Your task to perform on an android device: turn off notifications in google photos Image 0: 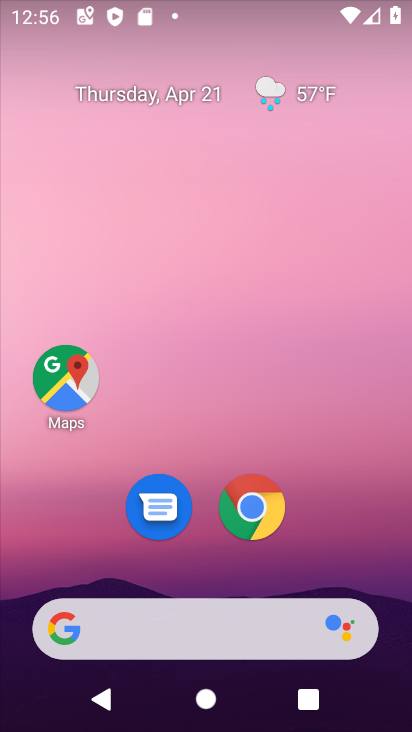
Step 0: drag from (341, 531) to (294, 27)
Your task to perform on an android device: turn off notifications in google photos Image 1: 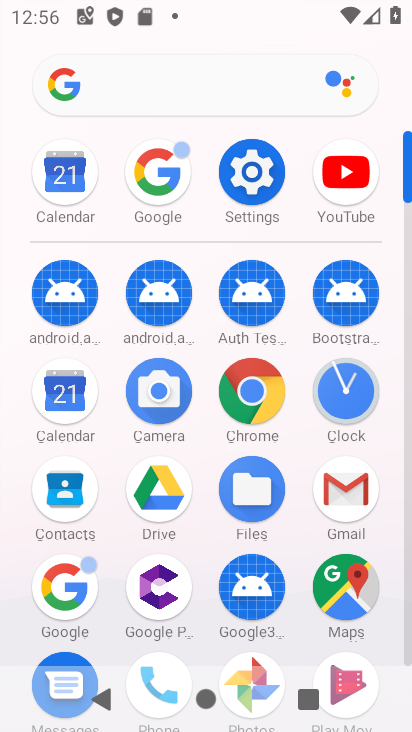
Step 1: drag from (196, 546) to (212, 253)
Your task to perform on an android device: turn off notifications in google photos Image 2: 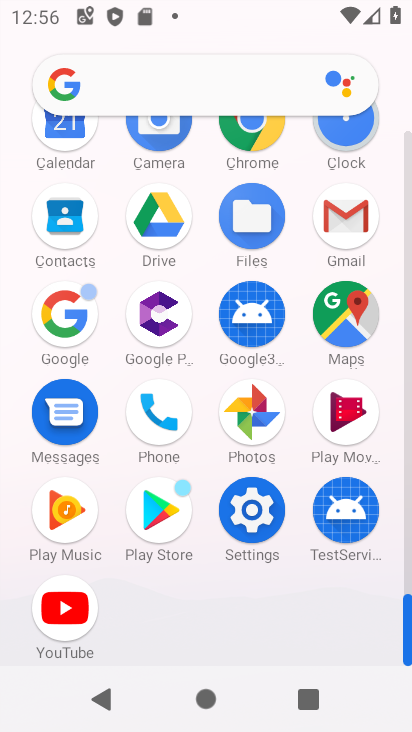
Step 2: click (251, 409)
Your task to perform on an android device: turn off notifications in google photos Image 3: 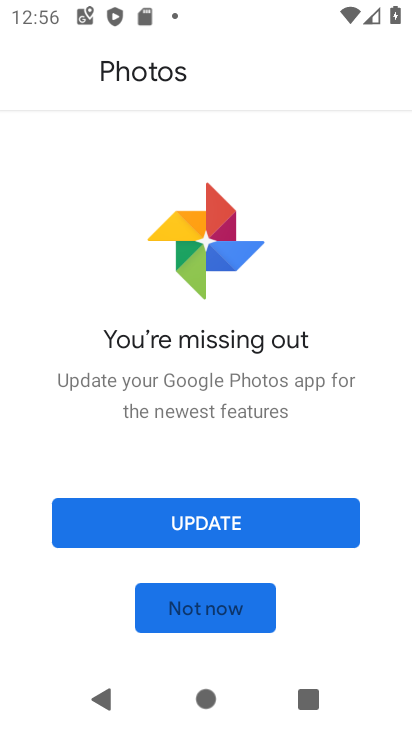
Step 3: click (236, 530)
Your task to perform on an android device: turn off notifications in google photos Image 4: 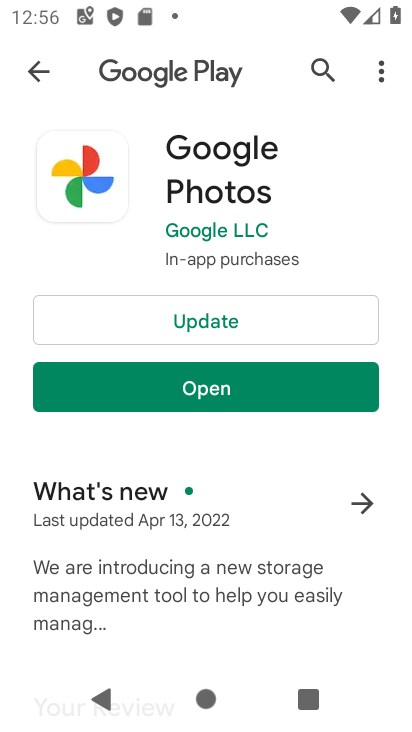
Step 4: click (261, 326)
Your task to perform on an android device: turn off notifications in google photos Image 5: 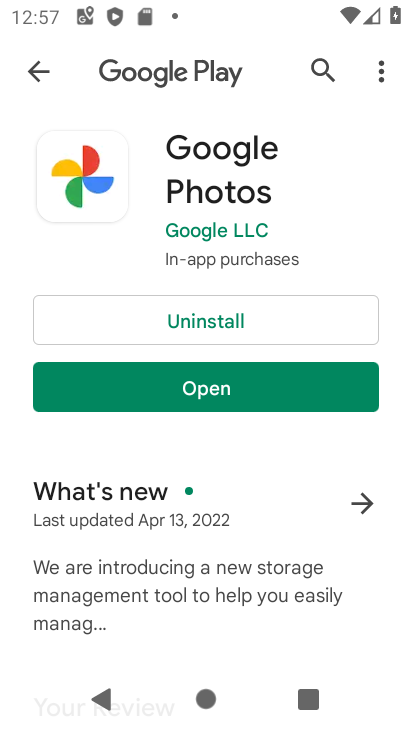
Step 5: click (237, 381)
Your task to perform on an android device: turn off notifications in google photos Image 6: 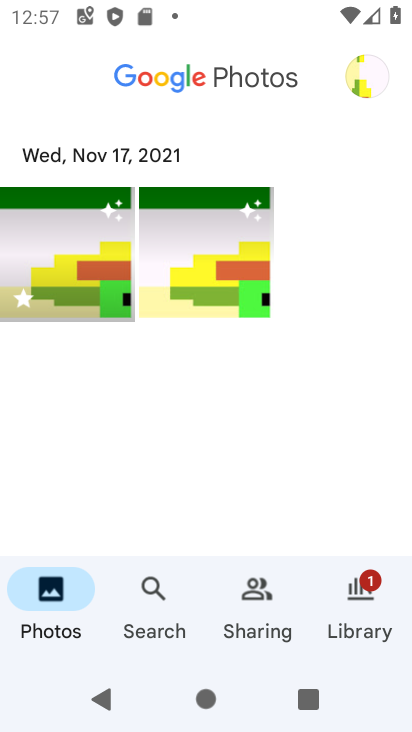
Step 6: click (366, 72)
Your task to perform on an android device: turn off notifications in google photos Image 7: 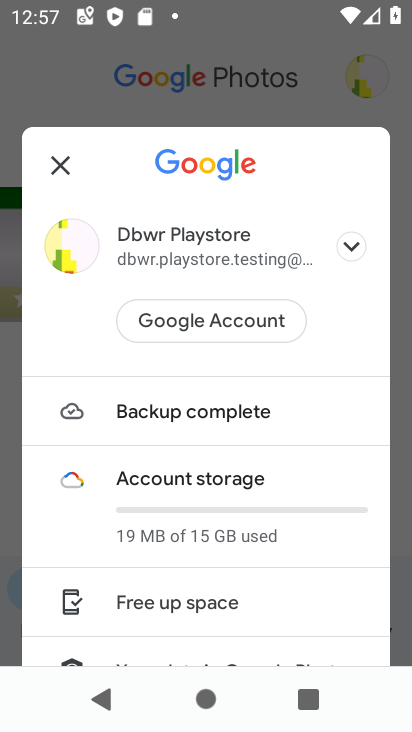
Step 7: drag from (211, 612) to (282, 350)
Your task to perform on an android device: turn off notifications in google photos Image 8: 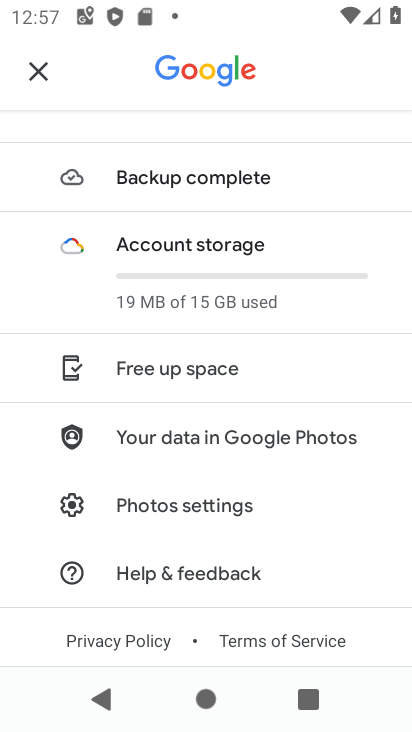
Step 8: click (195, 507)
Your task to perform on an android device: turn off notifications in google photos Image 9: 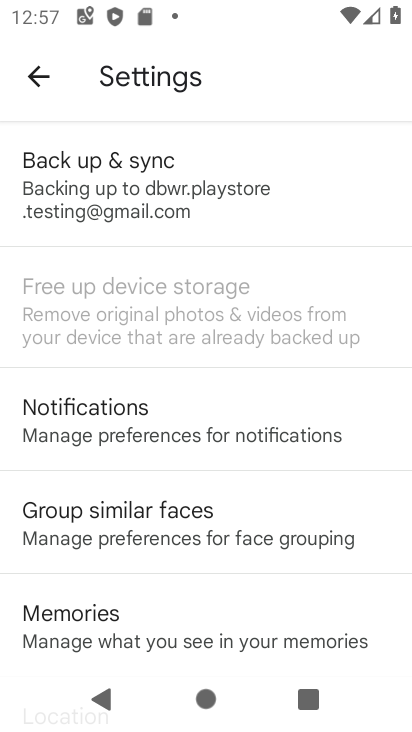
Step 9: click (229, 431)
Your task to perform on an android device: turn off notifications in google photos Image 10: 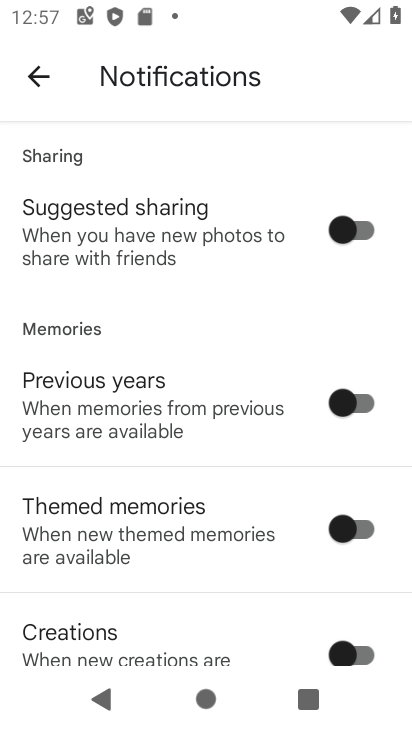
Step 10: drag from (151, 574) to (182, 415)
Your task to perform on an android device: turn off notifications in google photos Image 11: 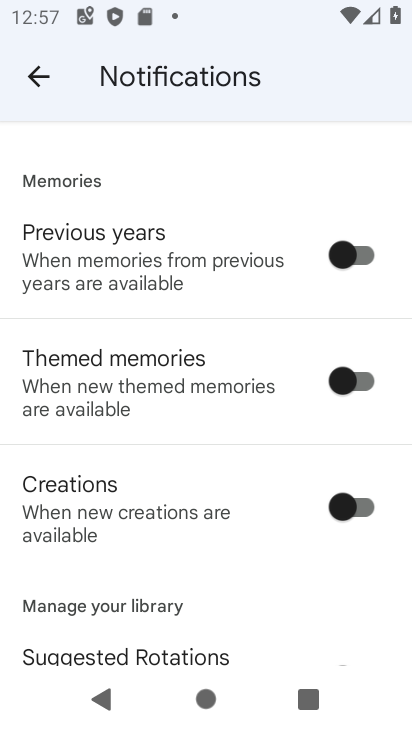
Step 11: drag from (167, 555) to (189, 444)
Your task to perform on an android device: turn off notifications in google photos Image 12: 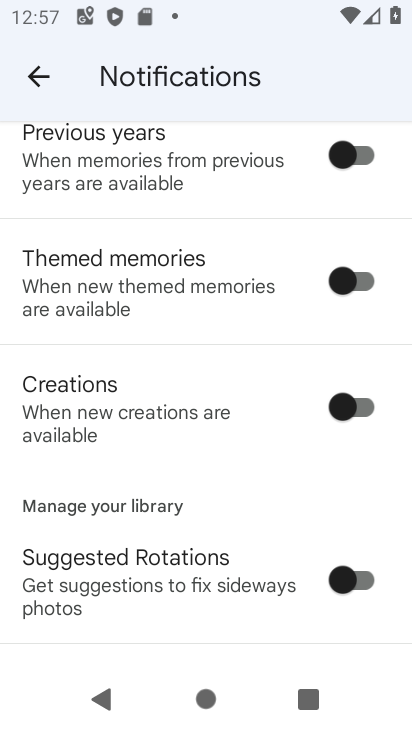
Step 12: drag from (164, 532) to (205, 389)
Your task to perform on an android device: turn off notifications in google photos Image 13: 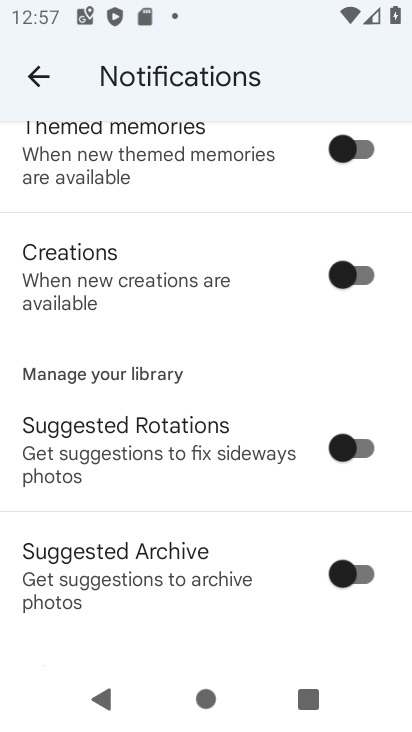
Step 13: drag from (151, 530) to (204, 393)
Your task to perform on an android device: turn off notifications in google photos Image 14: 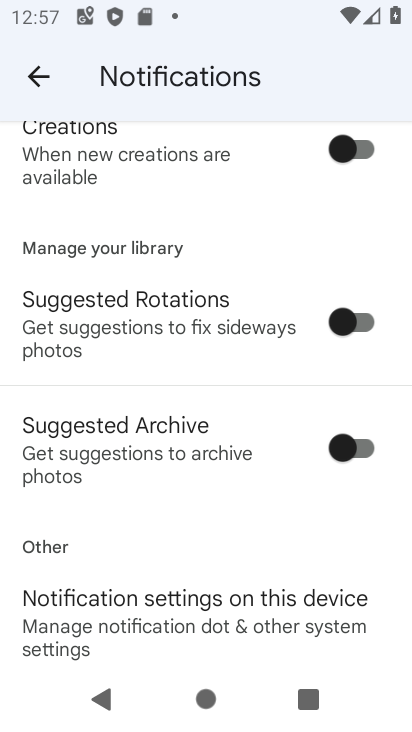
Step 14: drag from (135, 580) to (191, 404)
Your task to perform on an android device: turn off notifications in google photos Image 15: 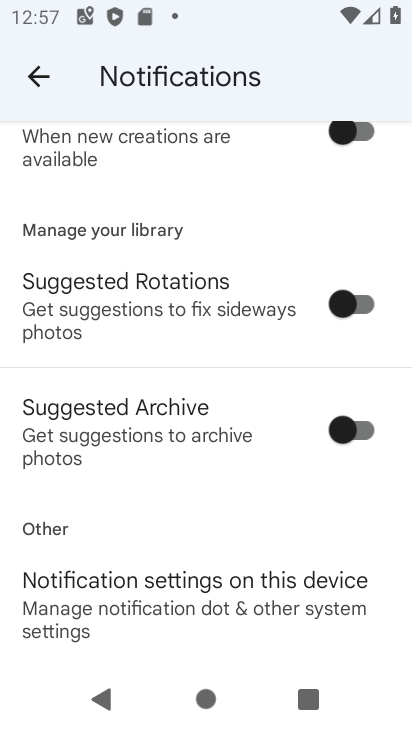
Step 15: click (190, 586)
Your task to perform on an android device: turn off notifications in google photos Image 16: 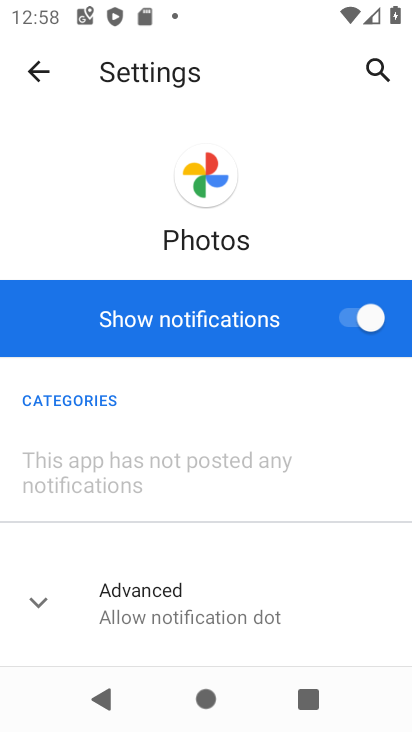
Step 16: click (368, 320)
Your task to perform on an android device: turn off notifications in google photos Image 17: 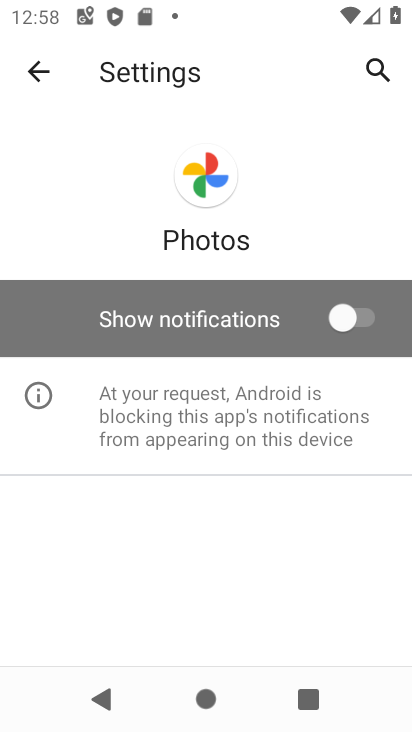
Step 17: task complete